Your task to perform on an android device: add a label to a message in the gmail app Image 0: 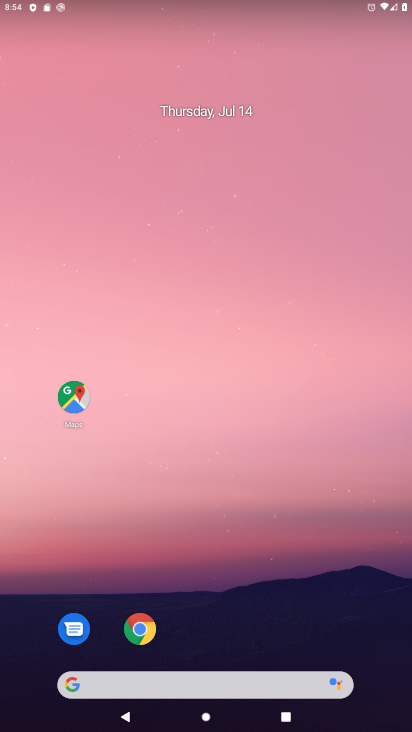
Step 0: drag from (281, 620) to (226, 2)
Your task to perform on an android device: add a label to a message in the gmail app Image 1: 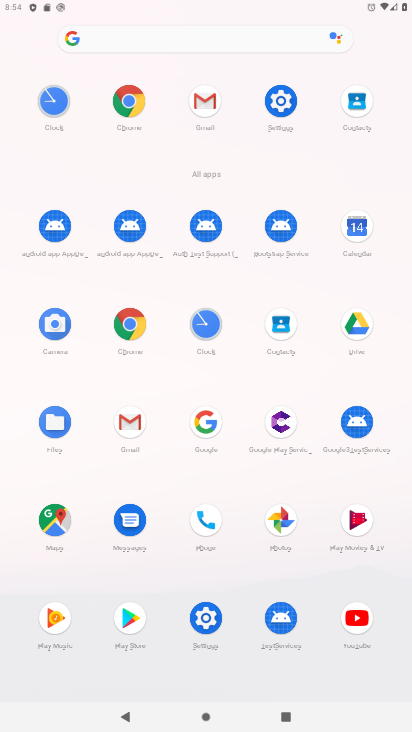
Step 1: click (206, 104)
Your task to perform on an android device: add a label to a message in the gmail app Image 2: 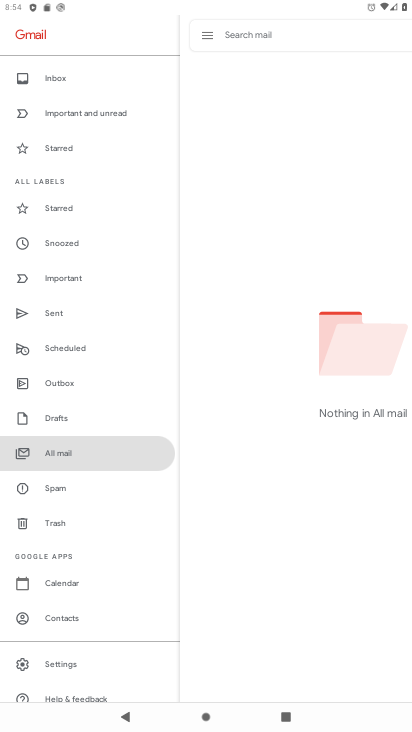
Step 2: task complete